Your task to perform on an android device: Go to internet settings Image 0: 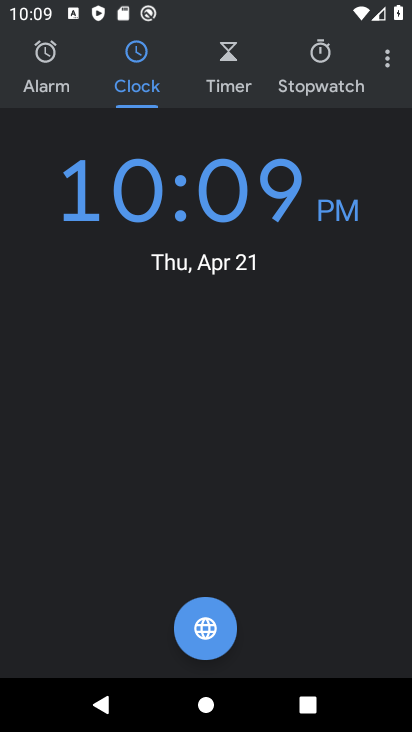
Step 0: press home button
Your task to perform on an android device: Go to internet settings Image 1: 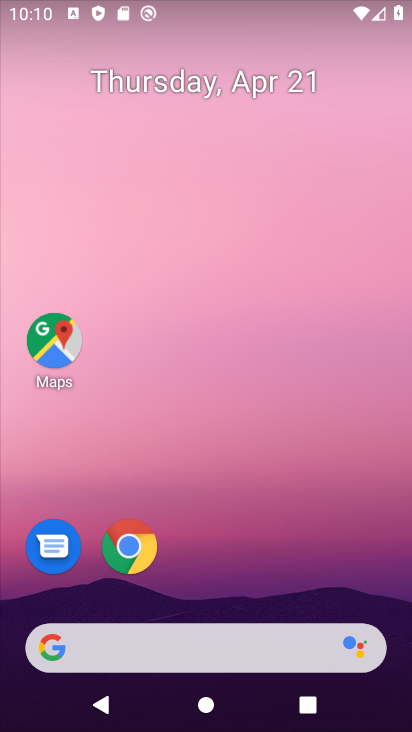
Step 1: drag from (376, 608) to (271, 92)
Your task to perform on an android device: Go to internet settings Image 2: 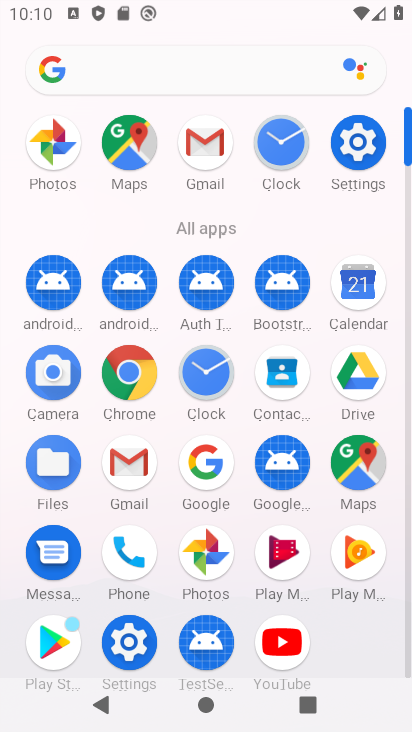
Step 2: click (129, 642)
Your task to perform on an android device: Go to internet settings Image 3: 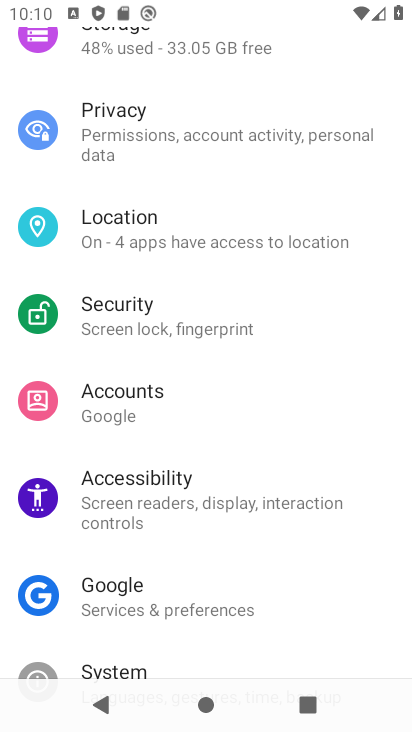
Step 3: drag from (382, 200) to (351, 448)
Your task to perform on an android device: Go to internet settings Image 4: 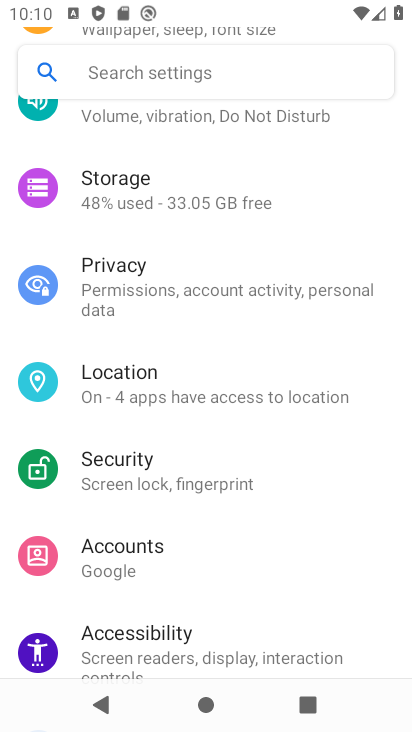
Step 4: drag from (331, 175) to (348, 475)
Your task to perform on an android device: Go to internet settings Image 5: 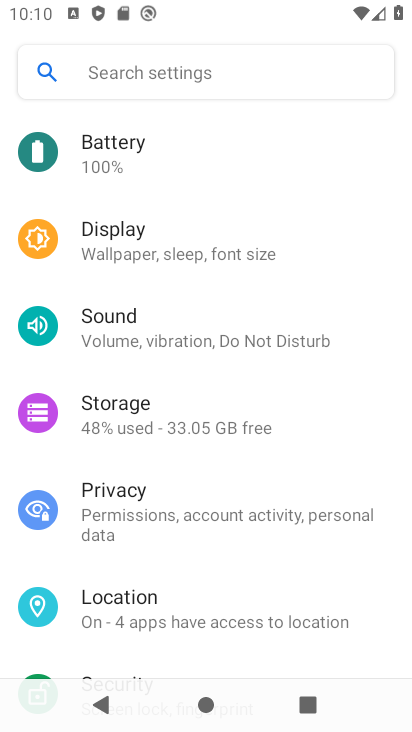
Step 5: drag from (337, 262) to (331, 516)
Your task to perform on an android device: Go to internet settings Image 6: 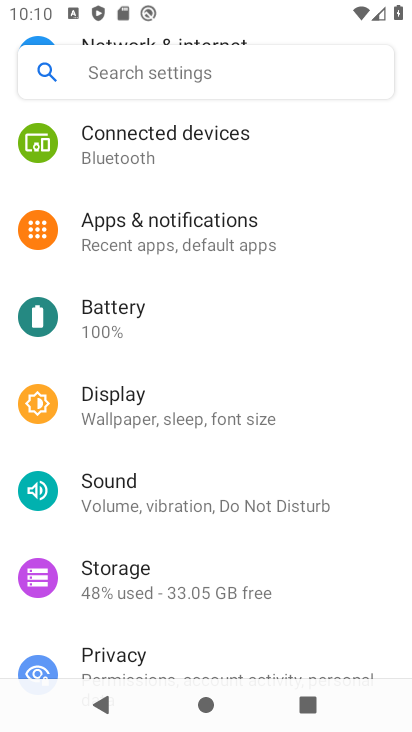
Step 6: drag from (307, 199) to (337, 479)
Your task to perform on an android device: Go to internet settings Image 7: 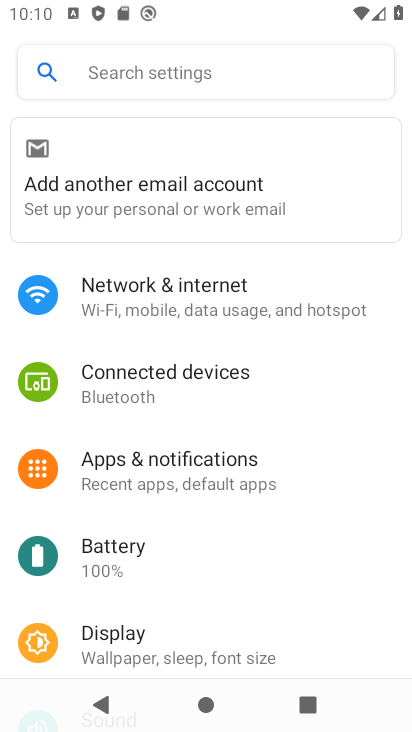
Step 7: click (132, 292)
Your task to perform on an android device: Go to internet settings Image 8: 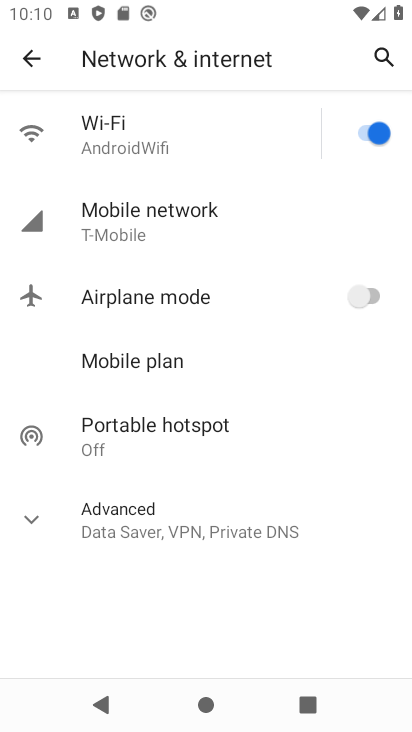
Step 8: click (133, 214)
Your task to perform on an android device: Go to internet settings Image 9: 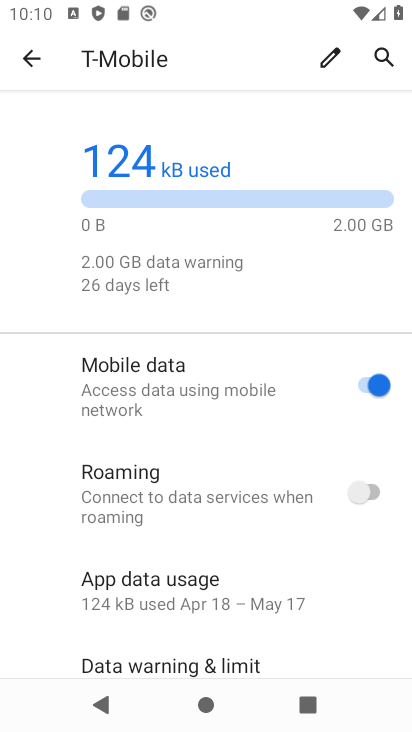
Step 9: task complete